Your task to perform on an android device: Open calendar and show me the third week of next month Image 0: 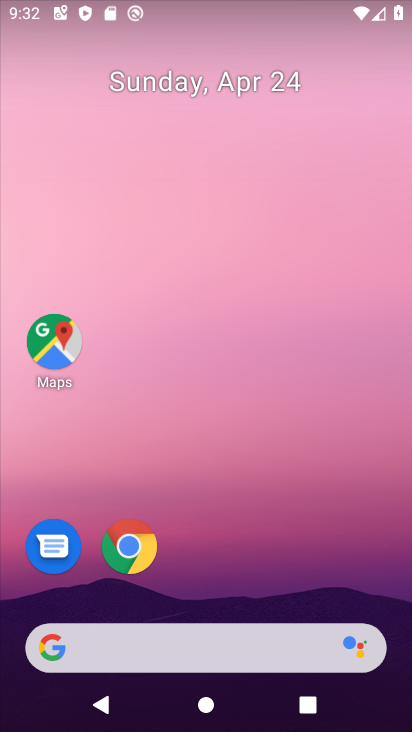
Step 0: drag from (236, 556) to (226, 3)
Your task to perform on an android device: Open calendar and show me the third week of next month Image 1: 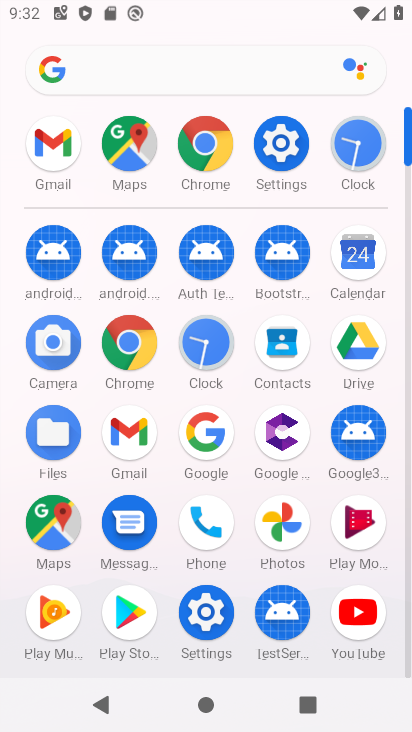
Step 1: click (353, 276)
Your task to perform on an android device: Open calendar and show me the third week of next month Image 2: 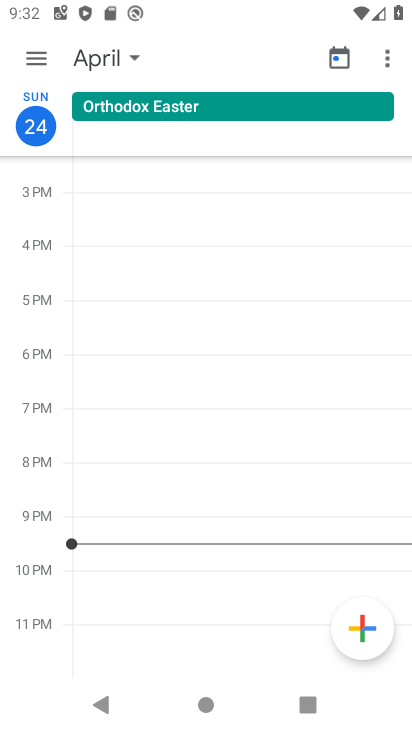
Step 2: click (123, 61)
Your task to perform on an android device: Open calendar and show me the third week of next month Image 3: 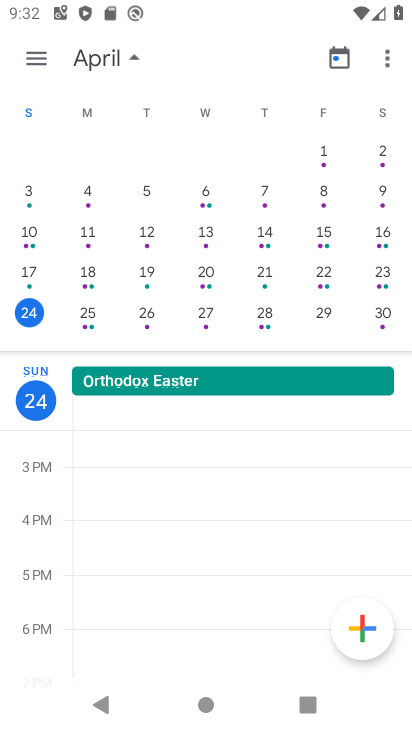
Step 3: drag from (388, 303) to (37, 272)
Your task to perform on an android device: Open calendar and show me the third week of next month Image 4: 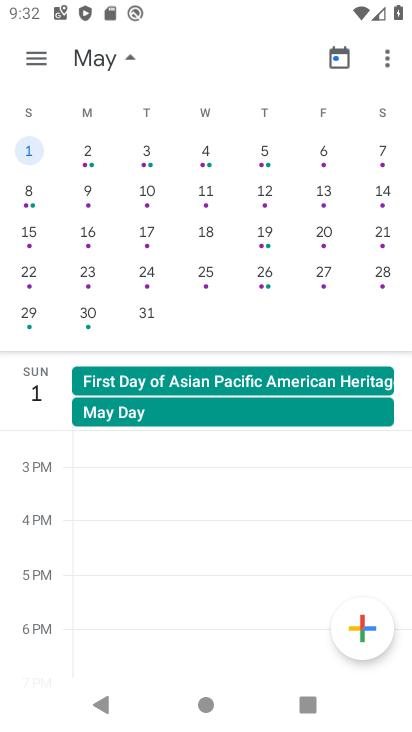
Step 4: click (149, 228)
Your task to perform on an android device: Open calendar and show me the third week of next month Image 5: 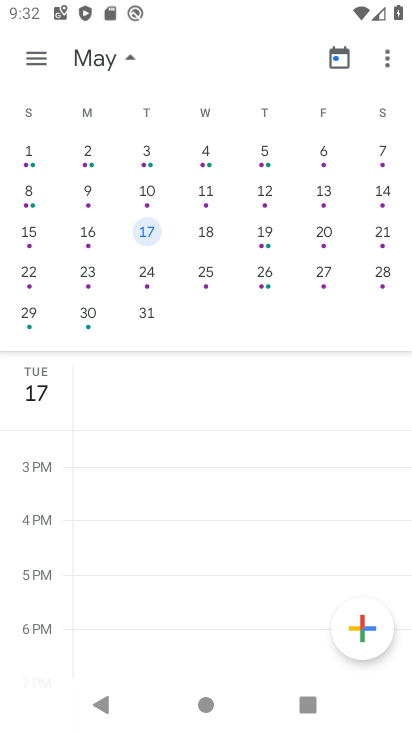
Step 5: task complete